Your task to perform on an android device: delete a single message in the gmail app Image 0: 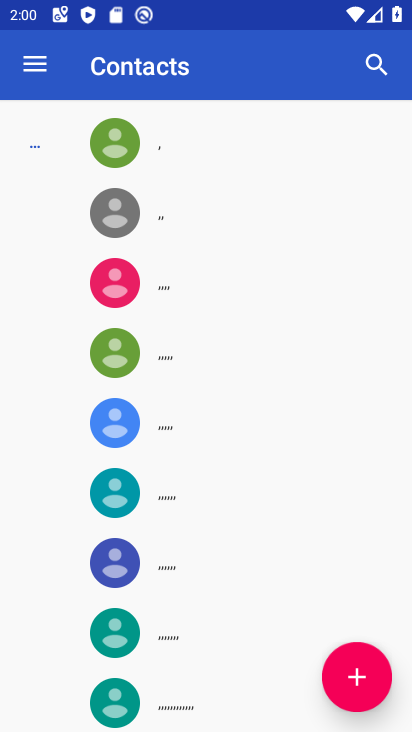
Step 0: press home button
Your task to perform on an android device: delete a single message in the gmail app Image 1: 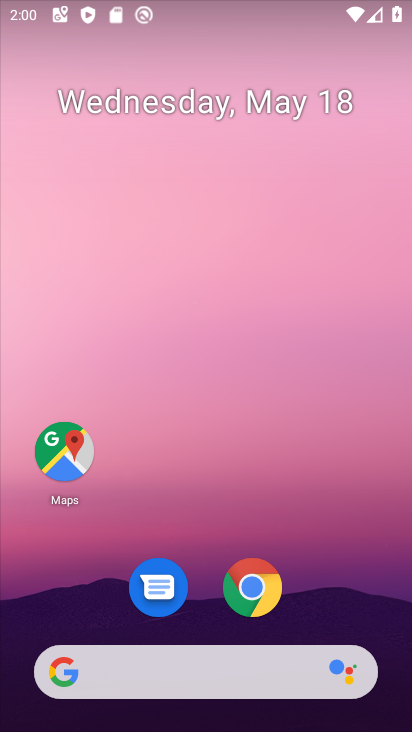
Step 1: drag from (339, 621) to (352, 12)
Your task to perform on an android device: delete a single message in the gmail app Image 2: 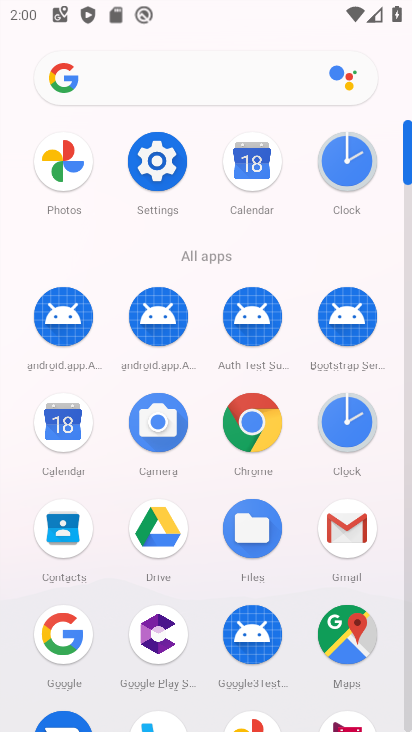
Step 2: click (327, 527)
Your task to perform on an android device: delete a single message in the gmail app Image 3: 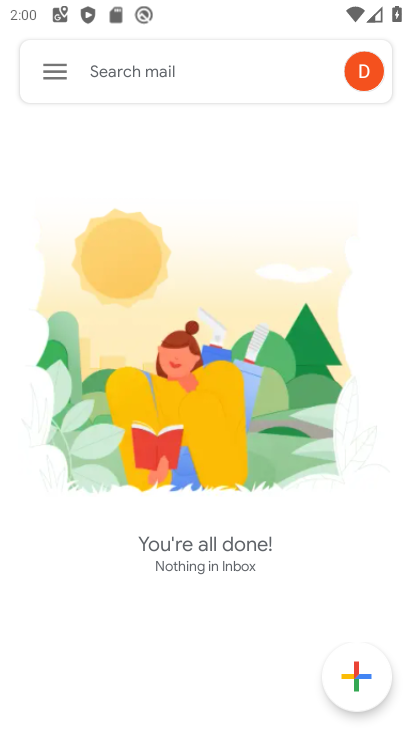
Step 3: click (50, 70)
Your task to perform on an android device: delete a single message in the gmail app Image 4: 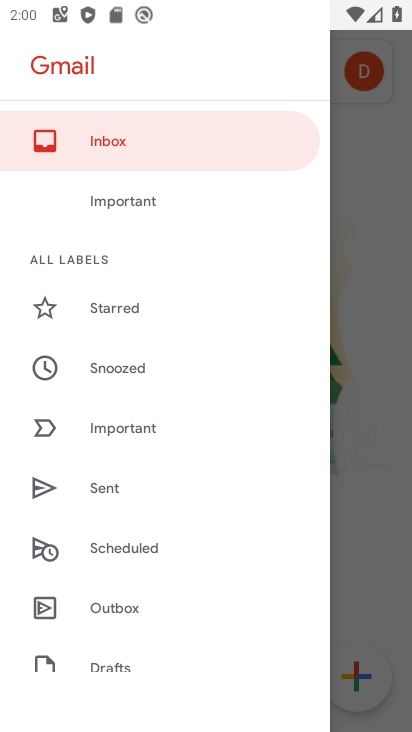
Step 4: drag from (152, 536) to (144, 252)
Your task to perform on an android device: delete a single message in the gmail app Image 5: 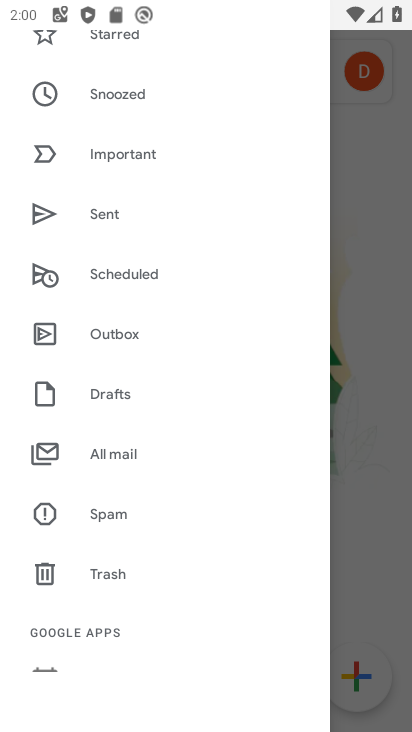
Step 5: click (112, 450)
Your task to perform on an android device: delete a single message in the gmail app Image 6: 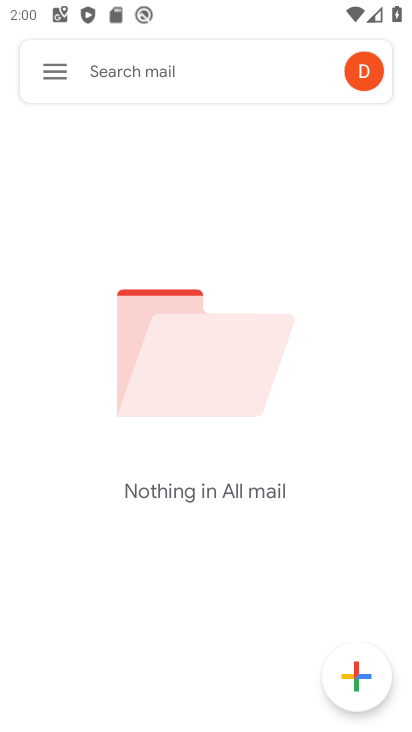
Step 6: task complete